Your task to perform on an android device: See recent photos Image 0: 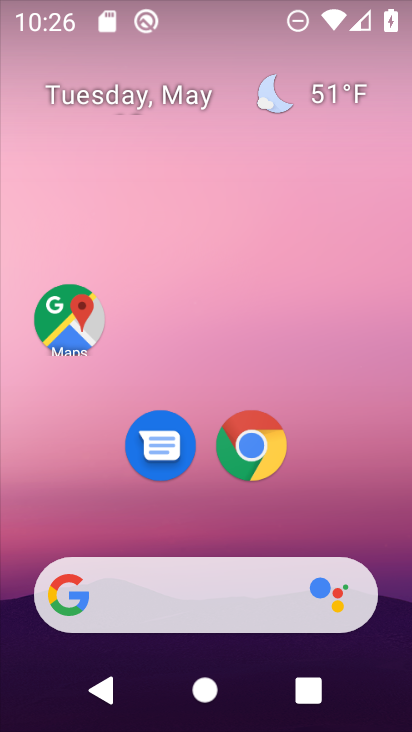
Step 0: click (397, 593)
Your task to perform on an android device: See recent photos Image 1: 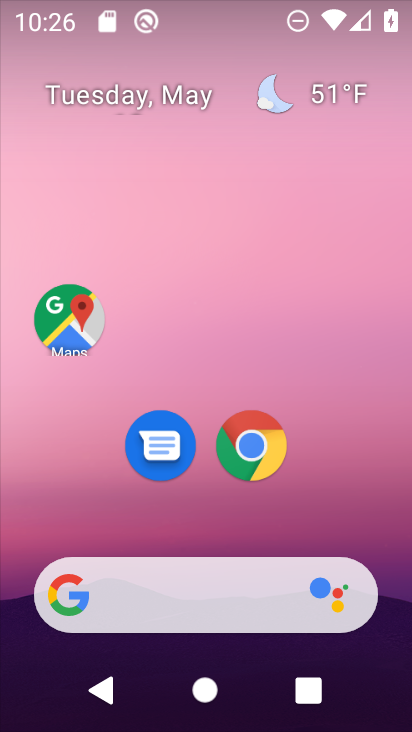
Step 1: drag from (232, 557) to (194, 73)
Your task to perform on an android device: See recent photos Image 2: 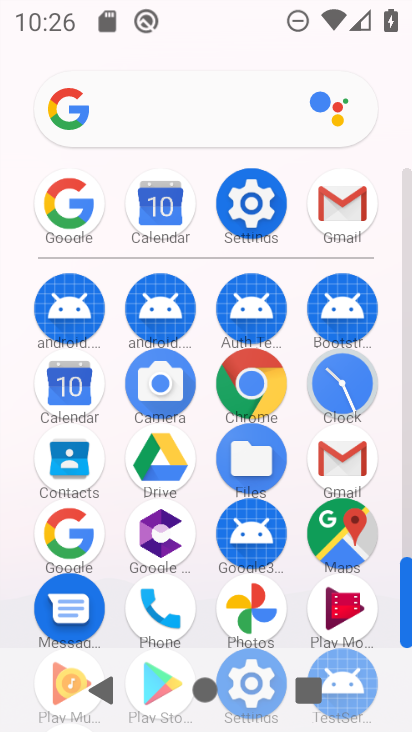
Step 2: click (234, 625)
Your task to perform on an android device: See recent photos Image 3: 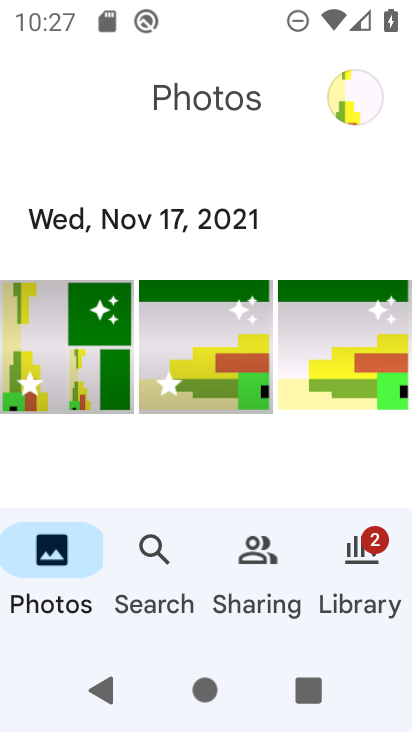
Step 3: task complete